Your task to perform on an android device: Open Chrome and go to settings Image 0: 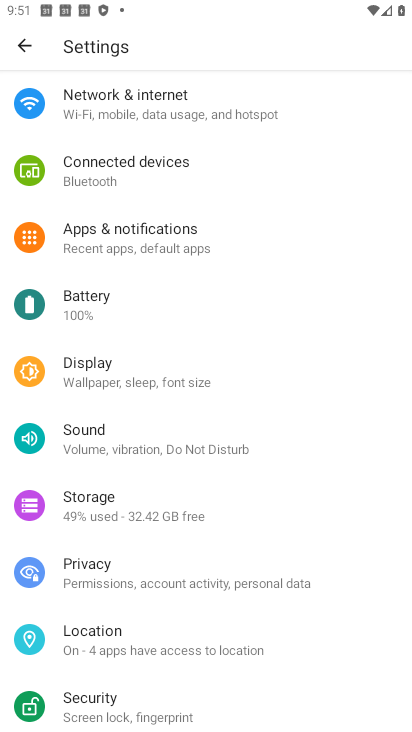
Step 0: press home button
Your task to perform on an android device: Open Chrome and go to settings Image 1: 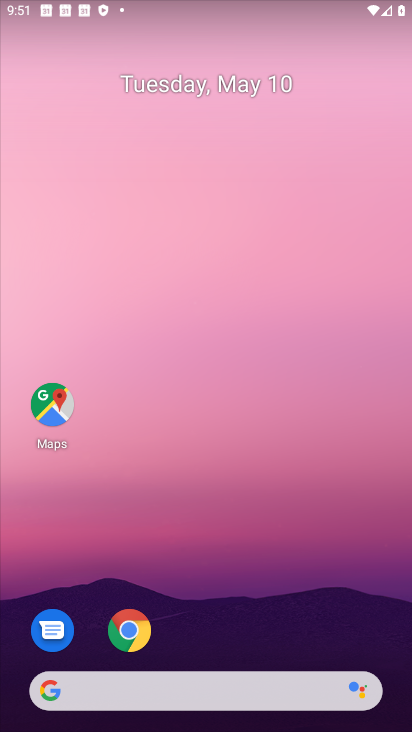
Step 1: click (120, 628)
Your task to perform on an android device: Open Chrome and go to settings Image 2: 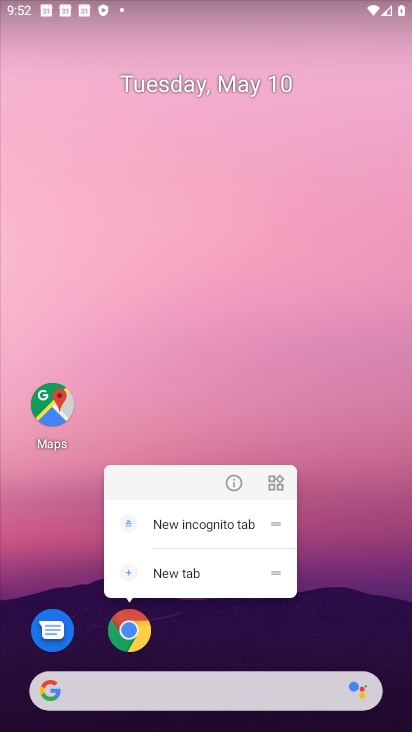
Step 2: click (120, 628)
Your task to perform on an android device: Open Chrome and go to settings Image 3: 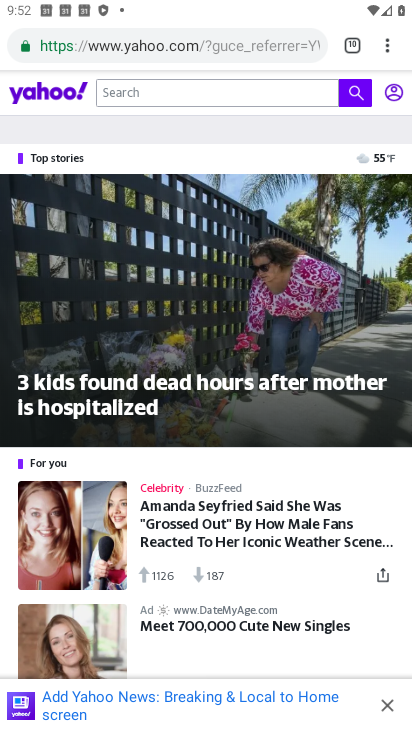
Step 3: click (383, 38)
Your task to perform on an android device: Open Chrome and go to settings Image 4: 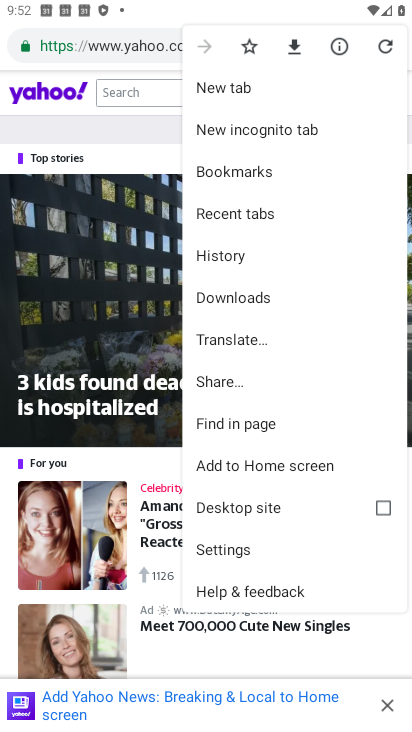
Step 4: click (253, 552)
Your task to perform on an android device: Open Chrome and go to settings Image 5: 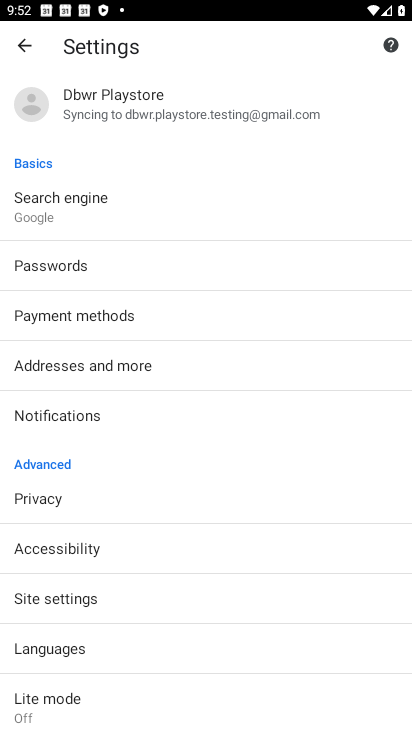
Step 5: task complete